Your task to perform on an android device: check the backup settings in the google photos Image 0: 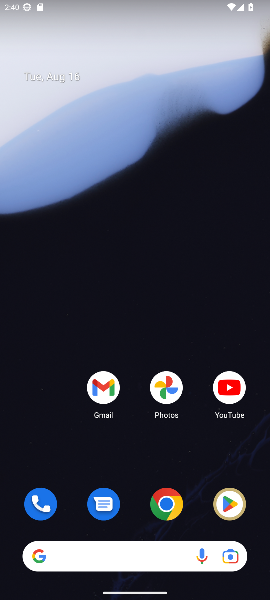
Step 0: drag from (114, 536) to (151, 233)
Your task to perform on an android device: check the backup settings in the google photos Image 1: 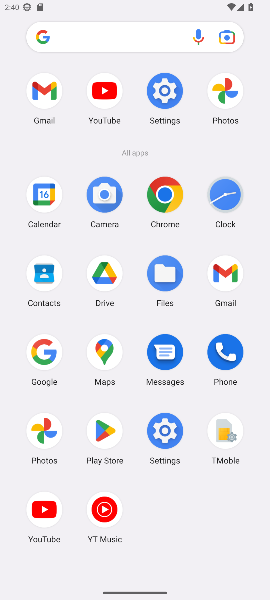
Step 1: click (47, 430)
Your task to perform on an android device: check the backup settings in the google photos Image 2: 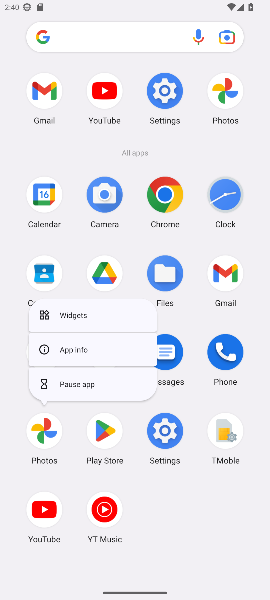
Step 2: click (47, 429)
Your task to perform on an android device: check the backup settings in the google photos Image 3: 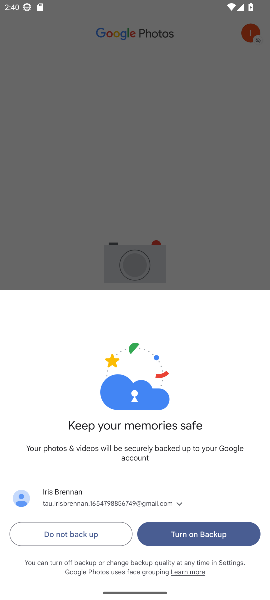
Step 3: click (182, 526)
Your task to perform on an android device: check the backup settings in the google photos Image 4: 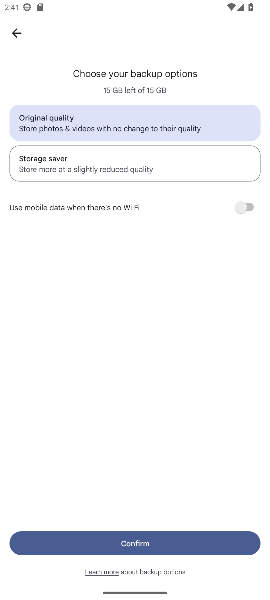
Step 4: click (131, 549)
Your task to perform on an android device: check the backup settings in the google photos Image 5: 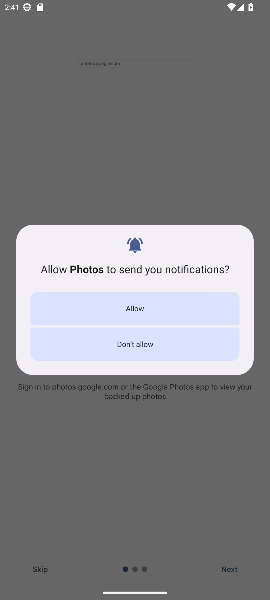
Step 5: click (148, 354)
Your task to perform on an android device: check the backup settings in the google photos Image 6: 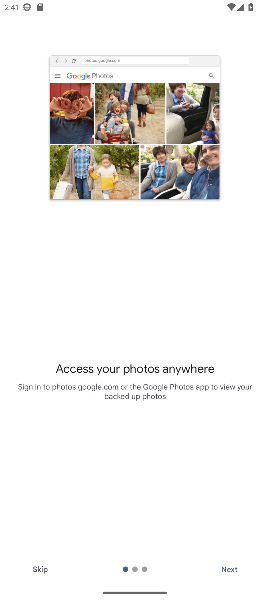
Step 6: click (234, 571)
Your task to perform on an android device: check the backup settings in the google photos Image 7: 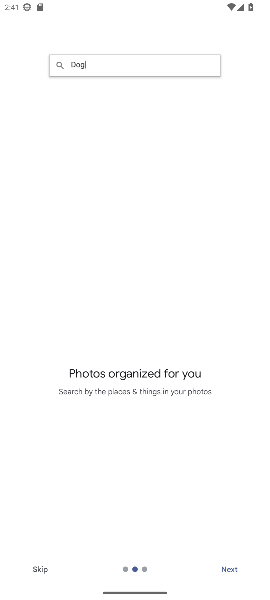
Step 7: click (233, 572)
Your task to perform on an android device: check the backup settings in the google photos Image 8: 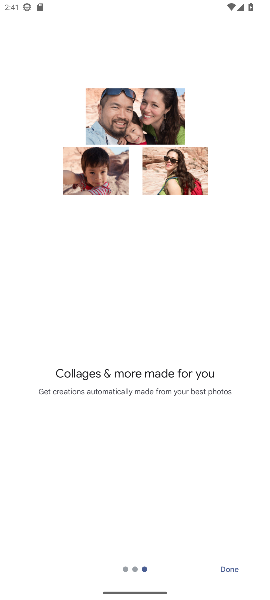
Step 8: click (233, 572)
Your task to perform on an android device: check the backup settings in the google photos Image 9: 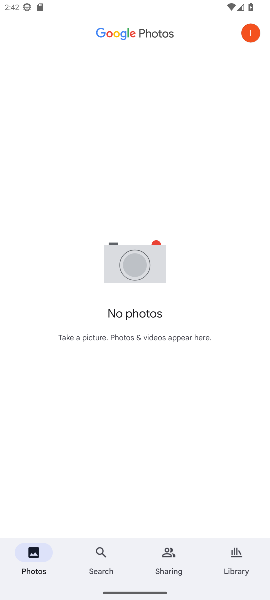
Step 9: click (241, 37)
Your task to perform on an android device: check the backup settings in the google photos Image 10: 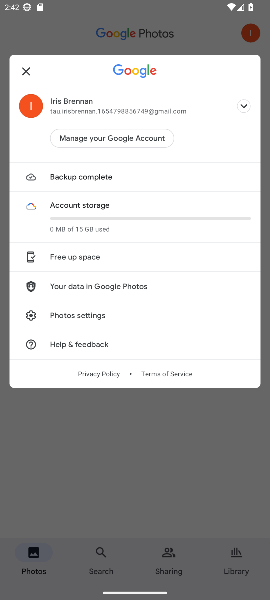
Step 10: click (61, 313)
Your task to perform on an android device: check the backup settings in the google photos Image 11: 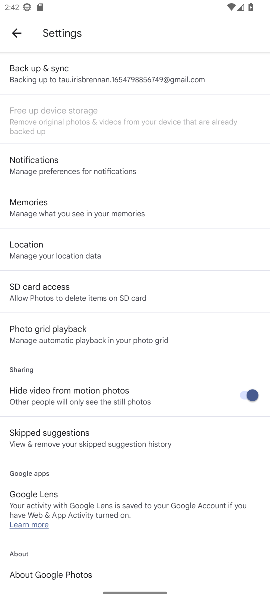
Step 11: click (69, 75)
Your task to perform on an android device: check the backup settings in the google photos Image 12: 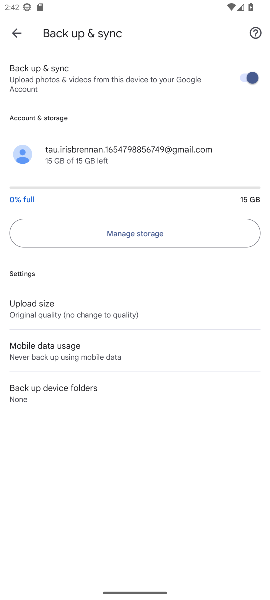
Step 12: task complete